Your task to perform on an android device: change the clock display to digital Image 0: 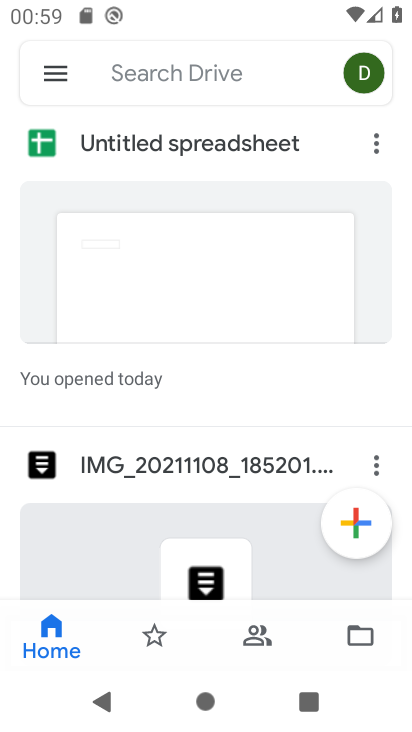
Step 0: press home button
Your task to perform on an android device: change the clock display to digital Image 1: 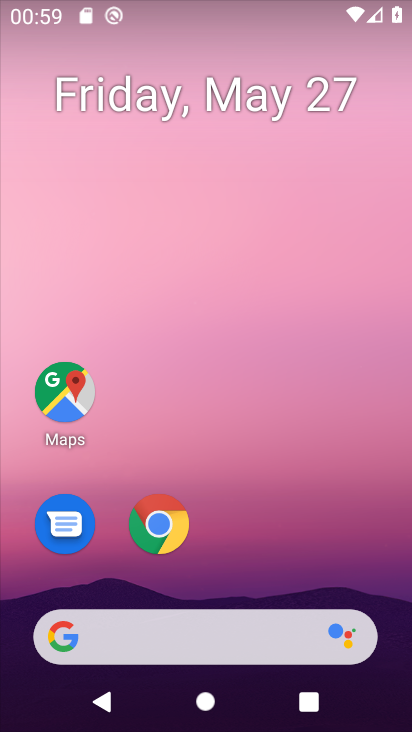
Step 1: drag from (232, 586) to (251, 46)
Your task to perform on an android device: change the clock display to digital Image 2: 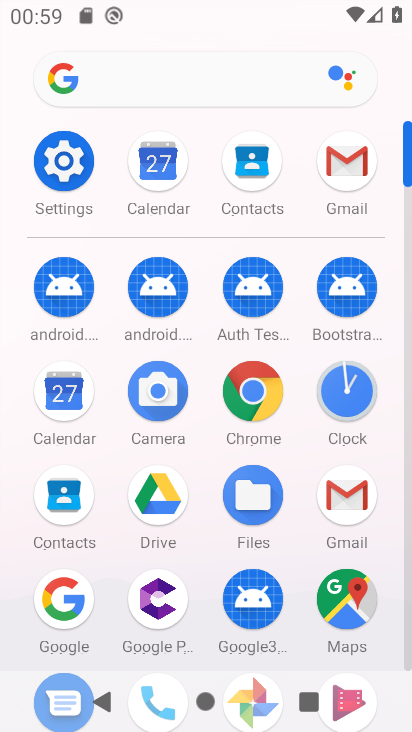
Step 2: click (339, 388)
Your task to perform on an android device: change the clock display to digital Image 3: 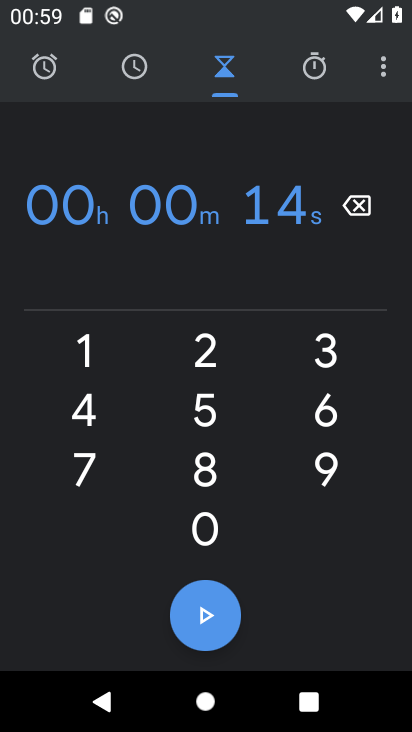
Step 3: click (142, 71)
Your task to perform on an android device: change the clock display to digital Image 4: 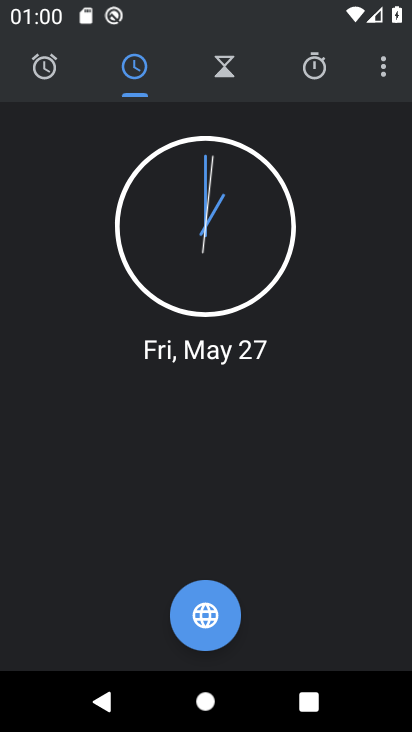
Step 4: click (379, 63)
Your task to perform on an android device: change the clock display to digital Image 5: 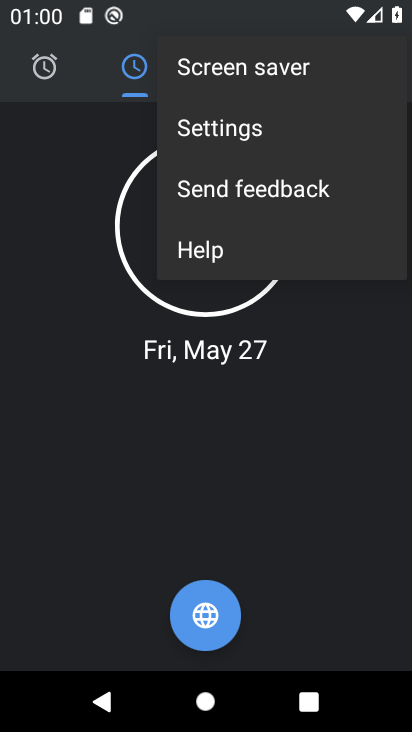
Step 5: click (286, 123)
Your task to perform on an android device: change the clock display to digital Image 6: 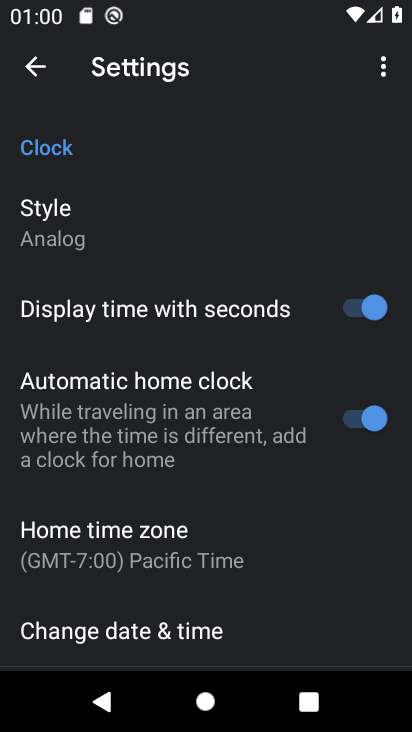
Step 6: click (111, 223)
Your task to perform on an android device: change the clock display to digital Image 7: 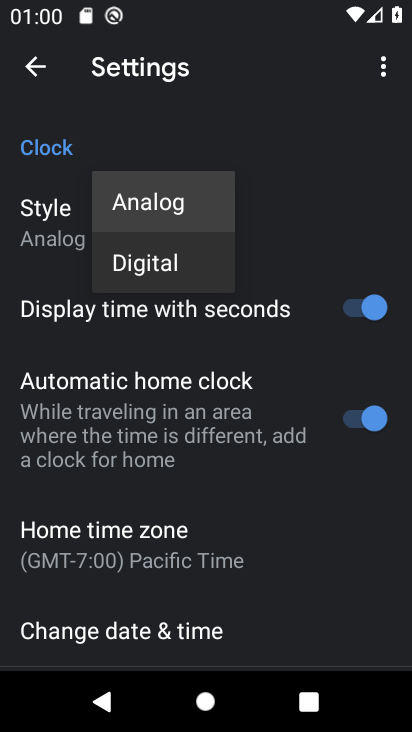
Step 7: click (147, 260)
Your task to perform on an android device: change the clock display to digital Image 8: 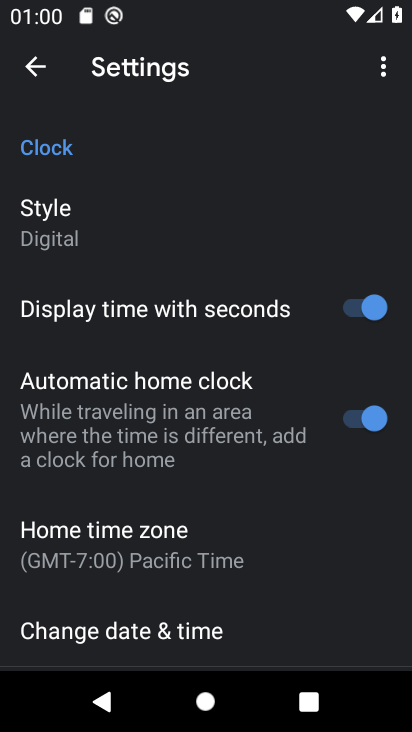
Step 8: click (37, 66)
Your task to perform on an android device: change the clock display to digital Image 9: 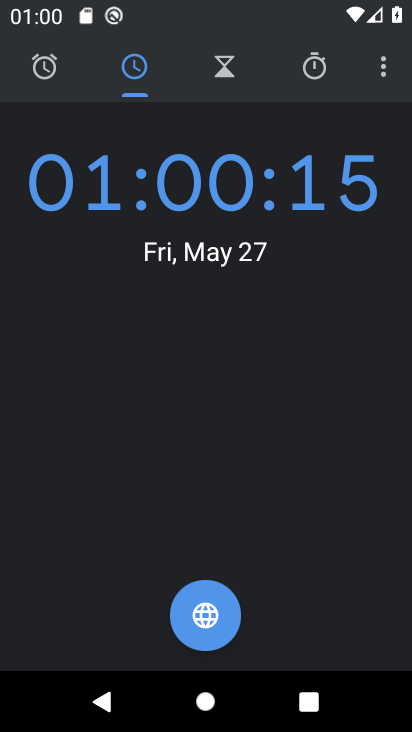
Step 9: task complete